Your task to perform on an android device: turn off smart reply in the gmail app Image 0: 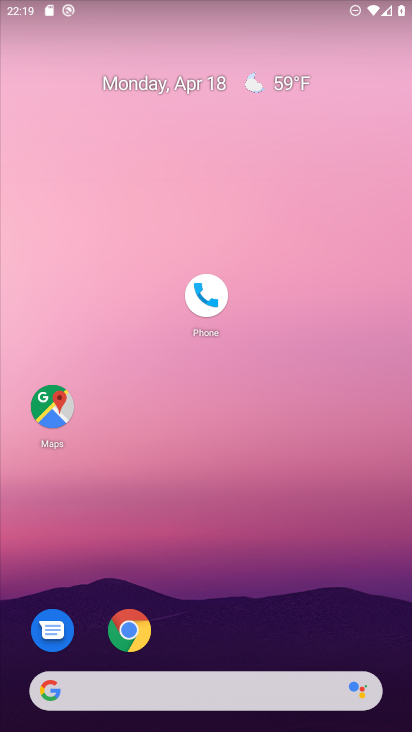
Step 0: drag from (291, 565) to (296, 174)
Your task to perform on an android device: turn off smart reply in the gmail app Image 1: 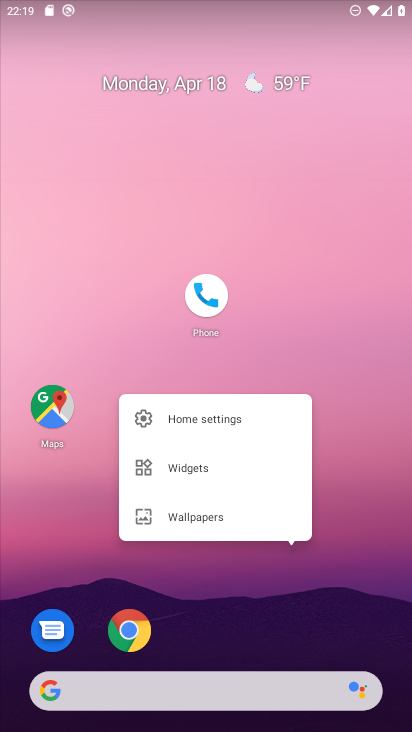
Step 1: drag from (344, 603) to (295, 163)
Your task to perform on an android device: turn off smart reply in the gmail app Image 2: 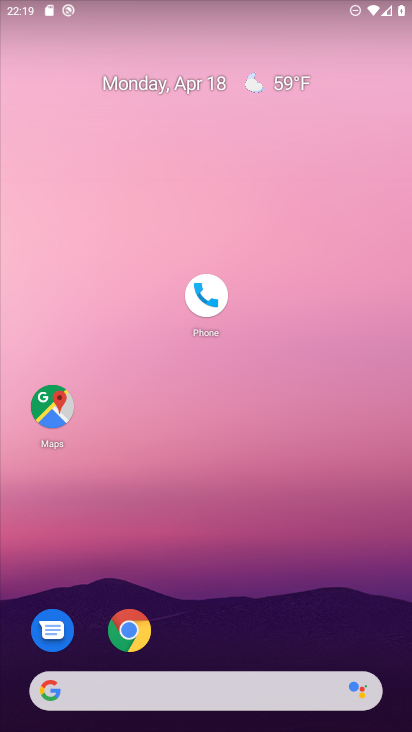
Step 2: drag from (263, 527) to (261, 159)
Your task to perform on an android device: turn off smart reply in the gmail app Image 3: 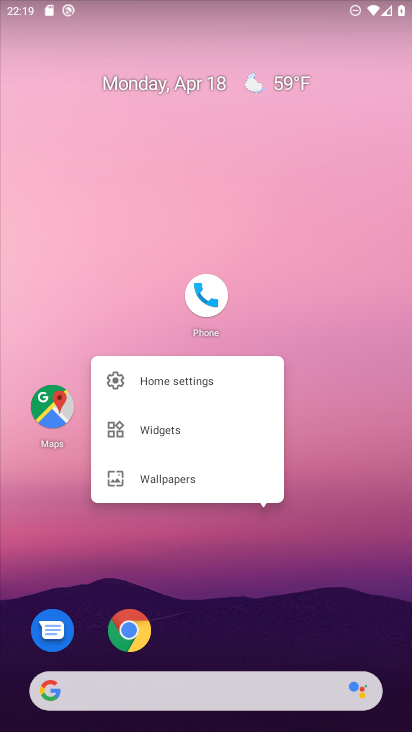
Step 3: drag from (270, 592) to (308, 138)
Your task to perform on an android device: turn off smart reply in the gmail app Image 4: 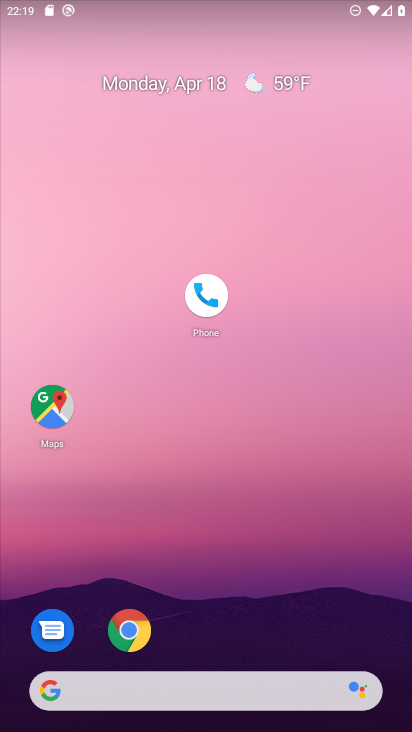
Step 4: drag from (260, 543) to (280, 189)
Your task to perform on an android device: turn off smart reply in the gmail app Image 5: 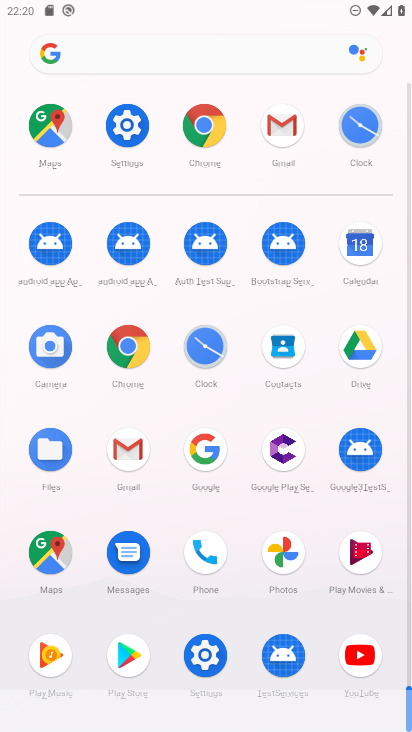
Step 5: click (132, 459)
Your task to perform on an android device: turn off smart reply in the gmail app Image 6: 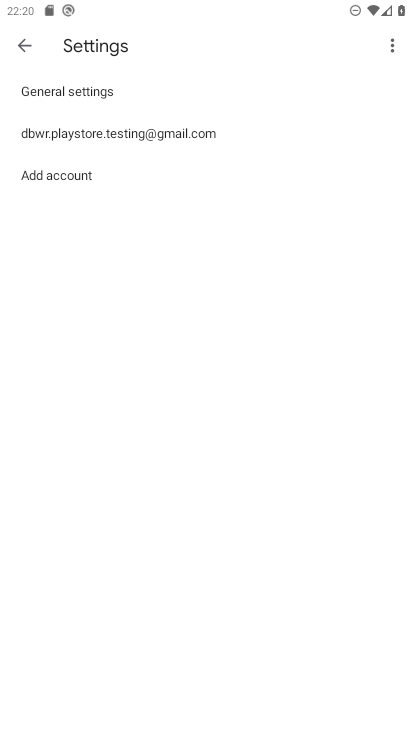
Step 6: click (46, 134)
Your task to perform on an android device: turn off smart reply in the gmail app Image 7: 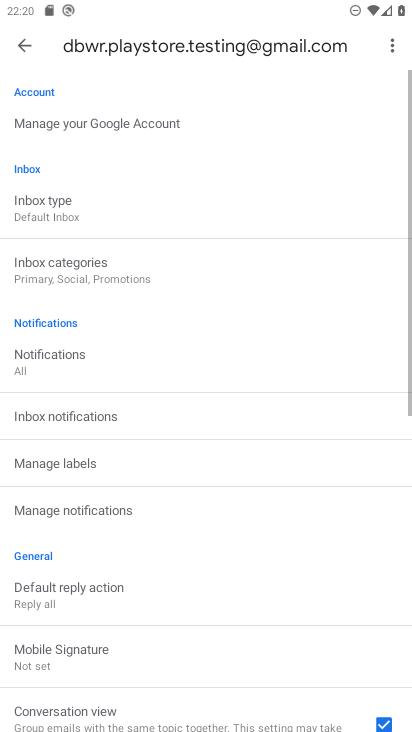
Step 7: drag from (296, 715) to (293, 227)
Your task to perform on an android device: turn off smart reply in the gmail app Image 8: 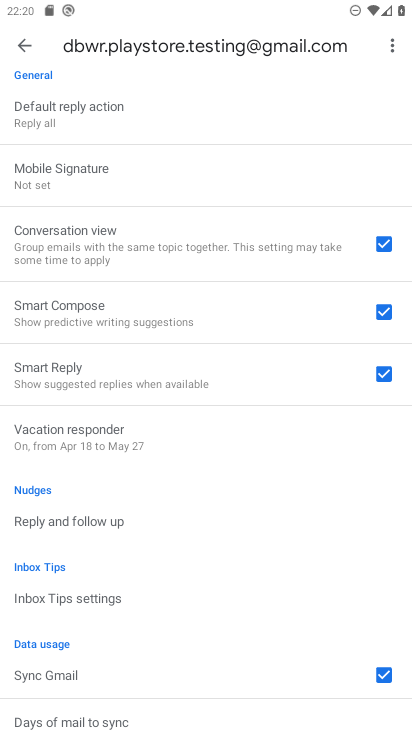
Step 8: click (386, 375)
Your task to perform on an android device: turn off smart reply in the gmail app Image 9: 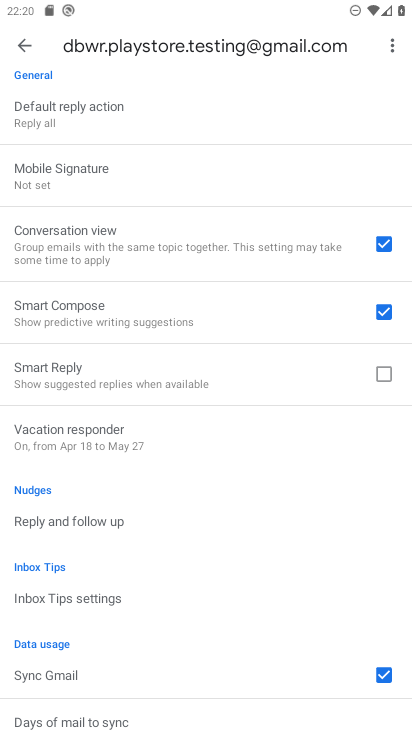
Step 9: task complete